Your task to perform on an android device: turn off notifications in google photos Image 0: 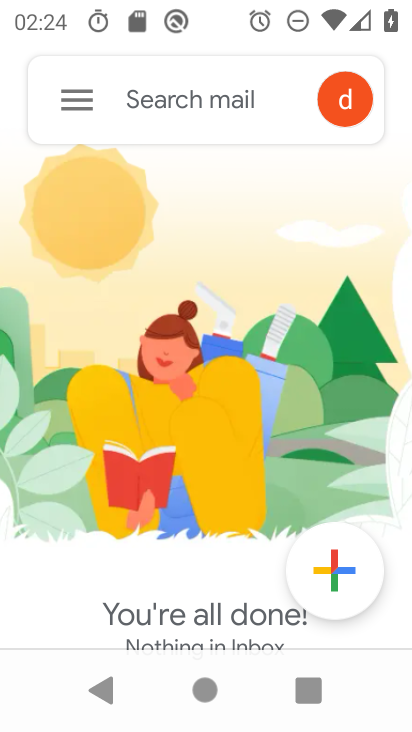
Step 0: press home button
Your task to perform on an android device: turn off notifications in google photos Image 1: 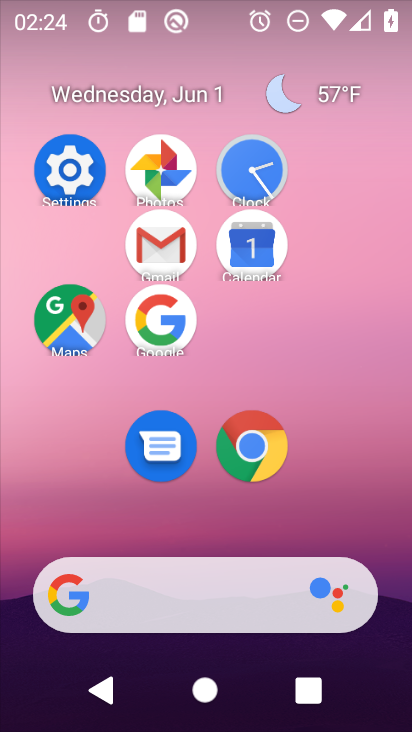
Step 1: click (152, 174)
Your task to perform on an android device: turn off notifications in google photos Image 2: 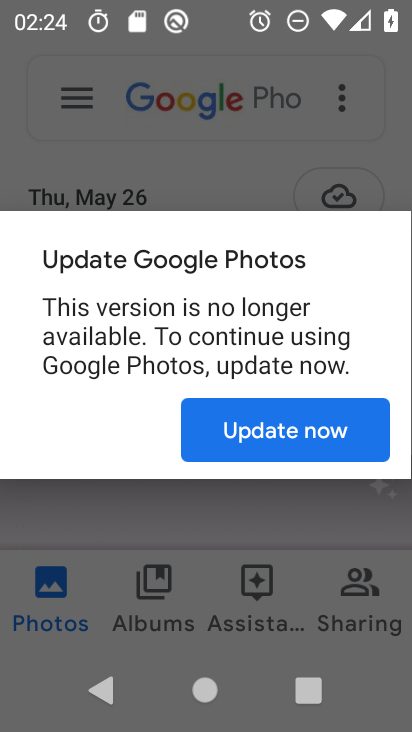
Step 2: click (76, 130)
Your task to perform on an android device: turn off notifications in google photos Image 3: 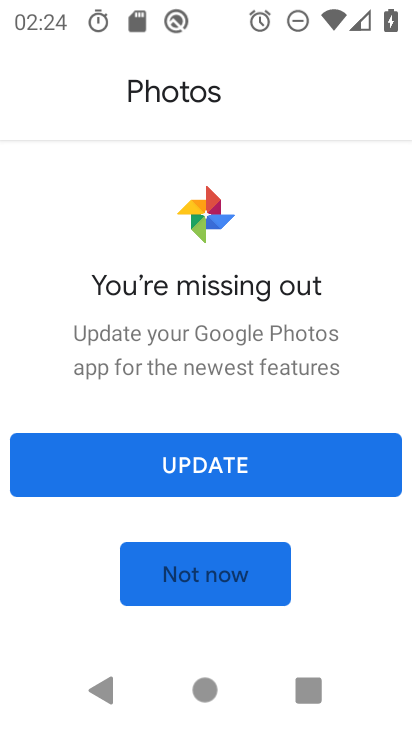
Step 3: click (227, 583)
Your task to perform on an android device: turn off notifications in google photos Image 4: 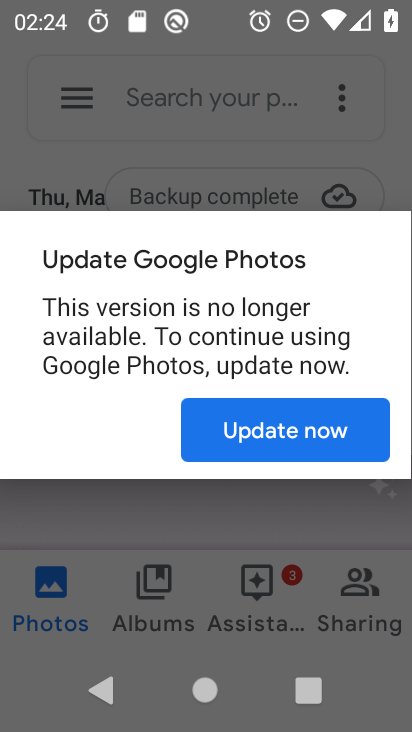
Step 4: click (287, 439)
Your task to perform on an android device: turn off notifications in google photos Image 5: 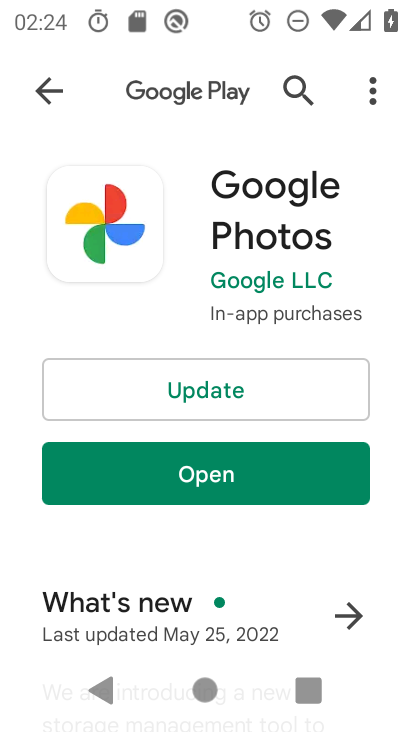
Step 5: click (310, 469)
Your task to perform on an android device: turn off notifications in google photos Image 6: 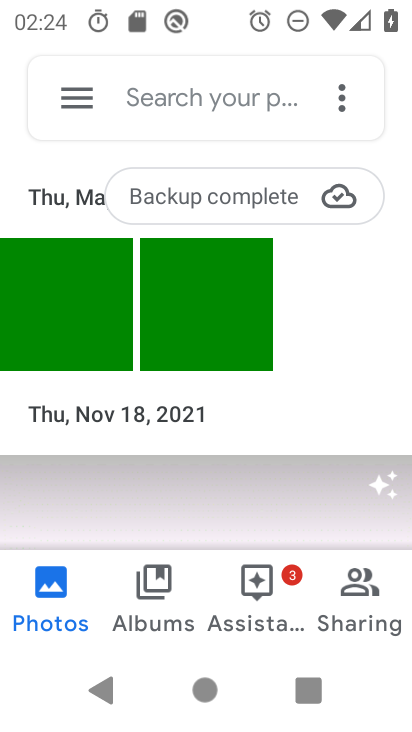
Step 6: click (72, 92)
Your task to perform on an android device: turn off notifications in google photos Image 7: 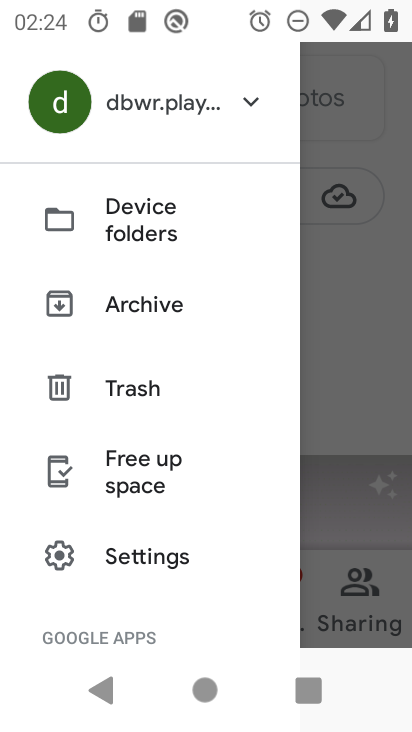
Step 7: drag from (239, 545) to (192, 214)
Your task to perform on an android device: turn off notifications in google photos Image 8: 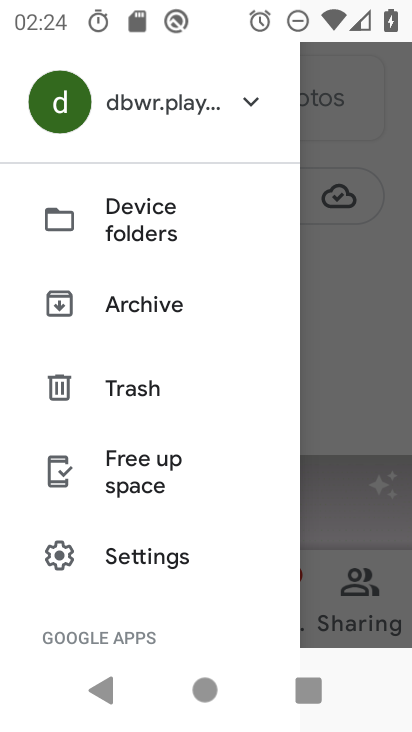
Step 8: click (133, 545)
Your task to perform on an android device: turn off notifications in google photos Image 9: 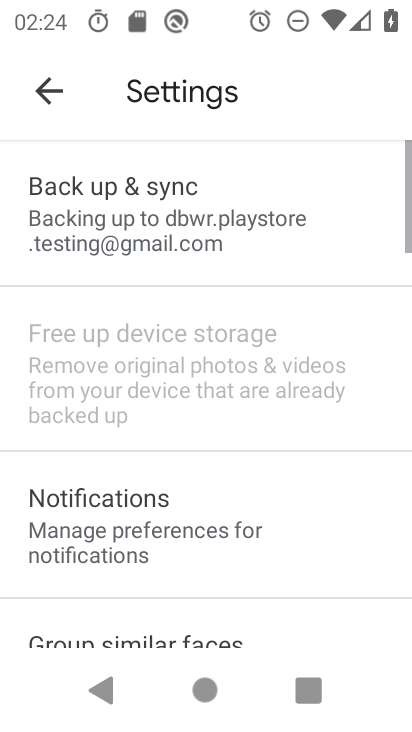
Step 9: drag from (129, 530) to (148, 187)
Your task to perform on an android device: turn off notifications in google photos Image 10: 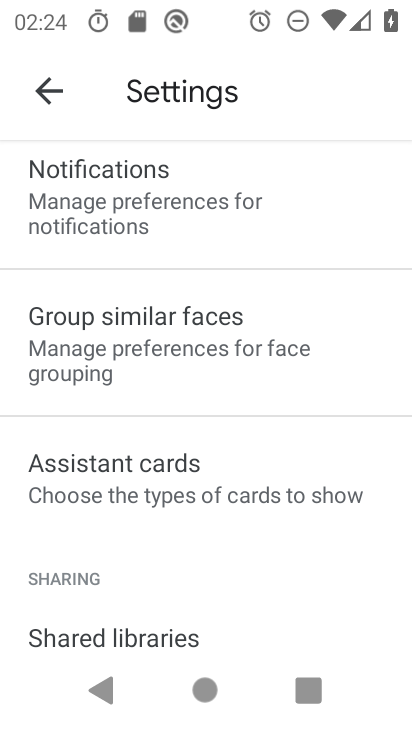
Step 10: click (151, 179)
Your task to perform on an android device: turn off notifications in google photos Image 11: 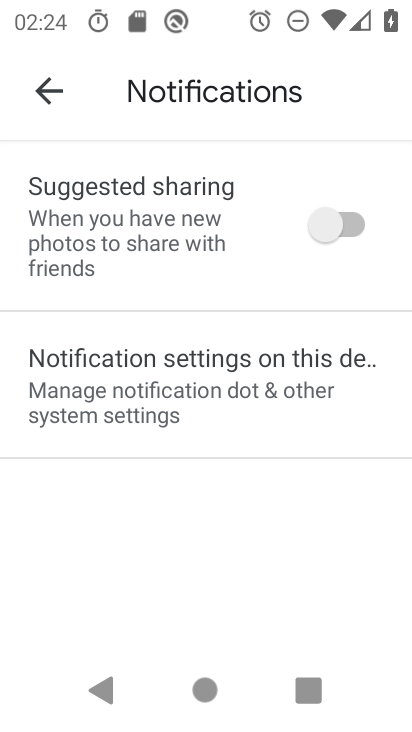
Step 11: click (349, 335)
Your task to perform on an android device: turn off notifications in google photos Image 12: 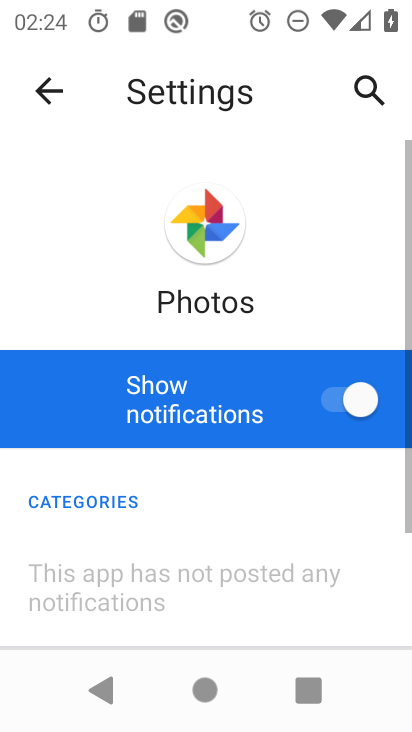
Step 12: click (362, 402)
Your task to perform on an android device: turn off notifications in google photos Image 13: 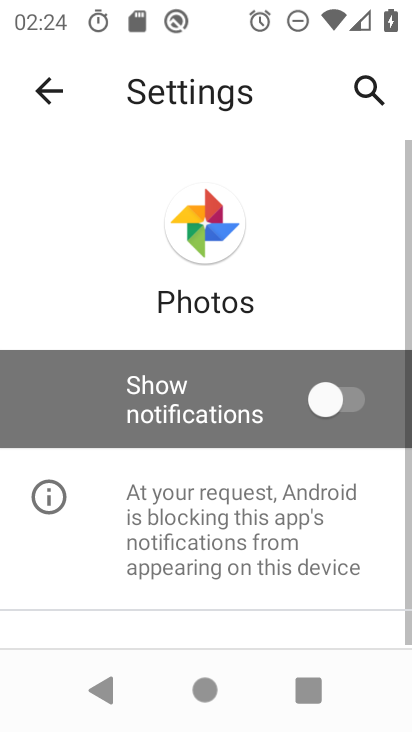
Step 13: task complete